Your task to perform on an android device: delete browsing data in the chrome app Image 0: 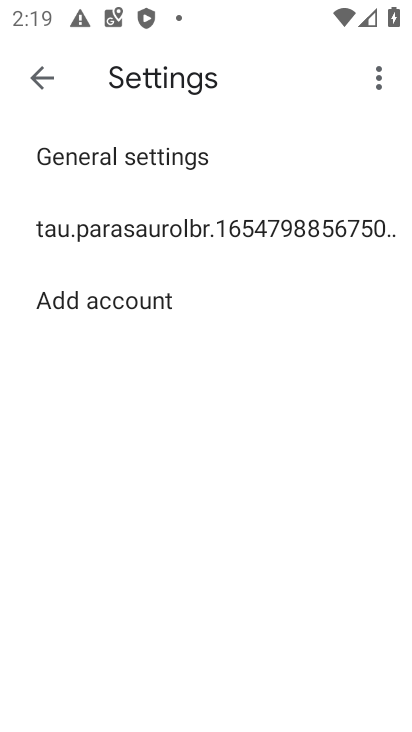
Step 0: press home button
Your task to perform on an android device: delete browsing data in the chrome app Image 1: 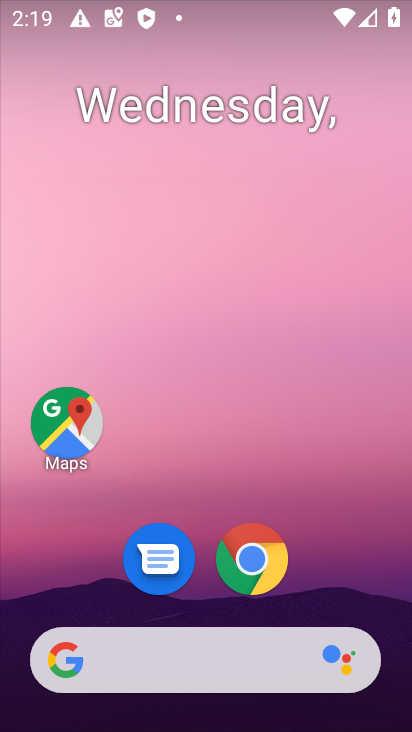
Step 1: click (255, 564)
Your task to perform on an android device: delete browsing data in the chrome app Image 2: 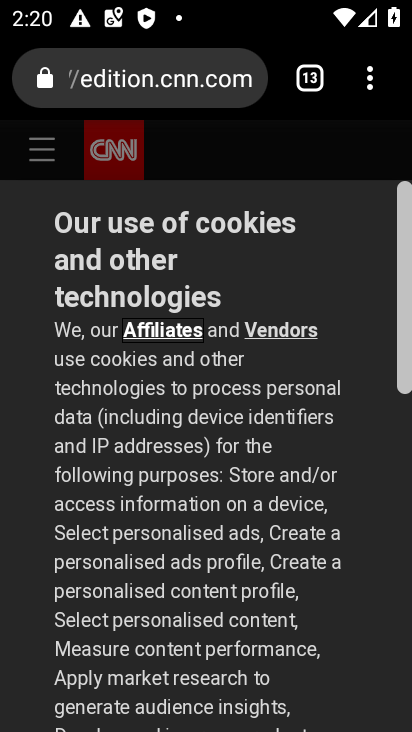
Step 2: click (370, 89)
Your task to perform on an android device: delete browsing data in the chrome app Image 3: 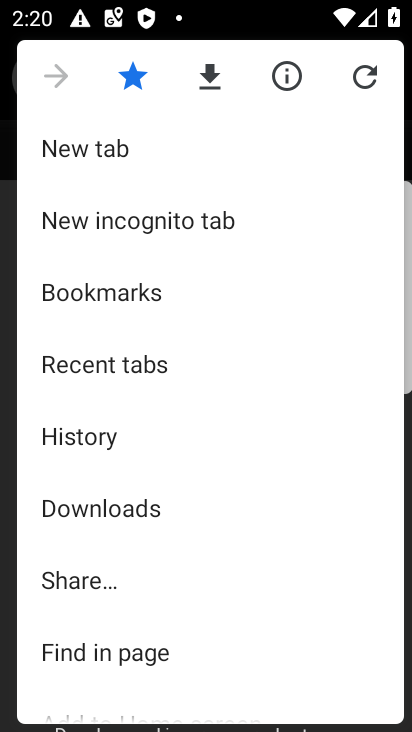
Step 3: click (82, 431)
Your task to perform on an android device: delete browsing data in the chrome app Image 4: 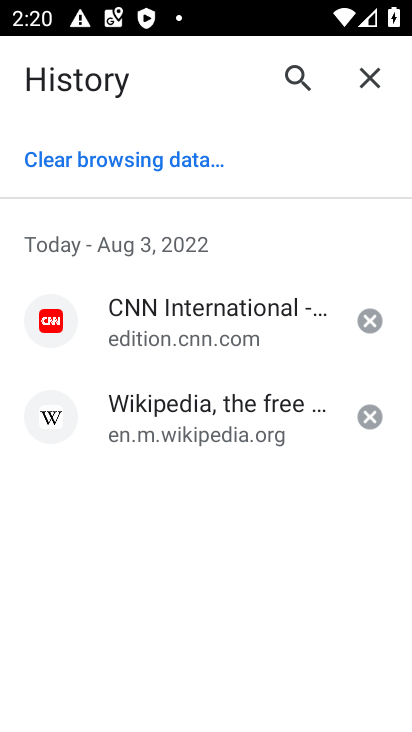
Step 4: click (115, 161)
Your task to perform on an android device: delete browsing data in the chrome app Image 5: 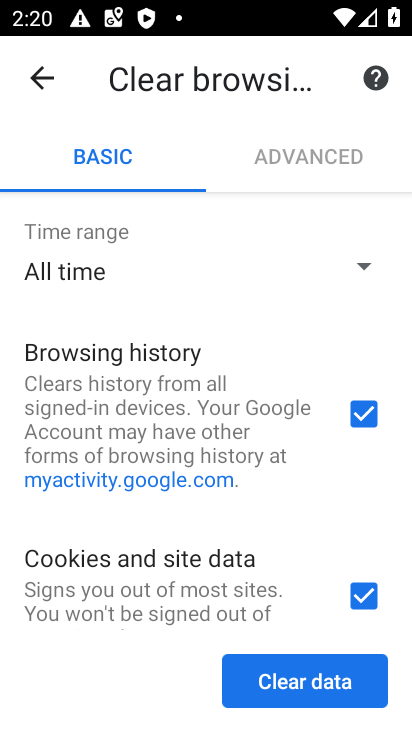
Step 5: drag from (309, 533) to (309, 408)
Your task to perform on an android device: delete browsing data in the chrome app Image 6: 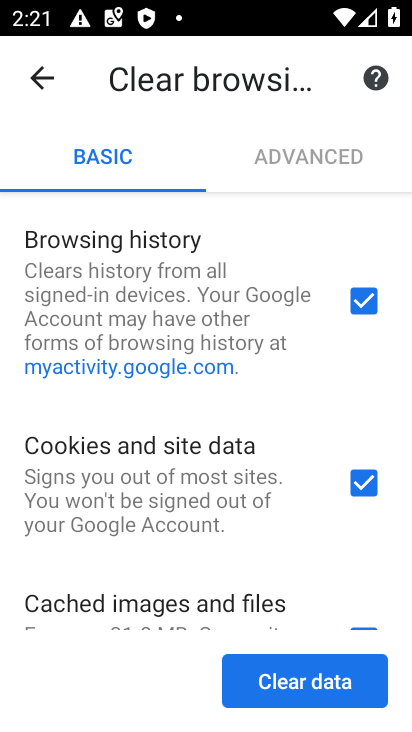
Step 6: click (371, 479)
Your task to perform on an android device: delete browsing data in the chrome app Image 7: 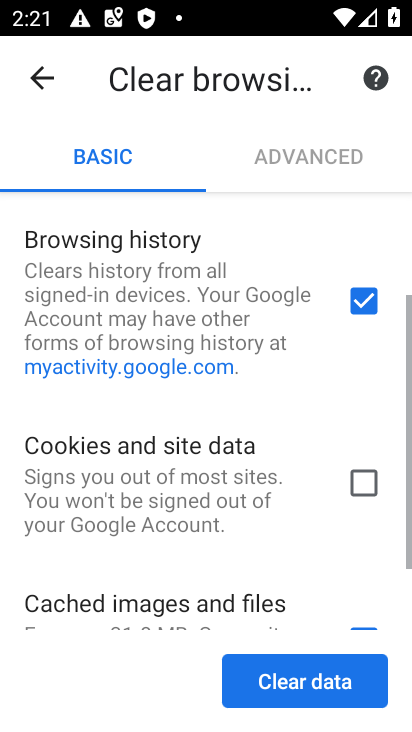
Step 7: drag from (262, 546) to (257, 395)
Your task to perform on an android device: delete browsing data in the chrome app Image 8: 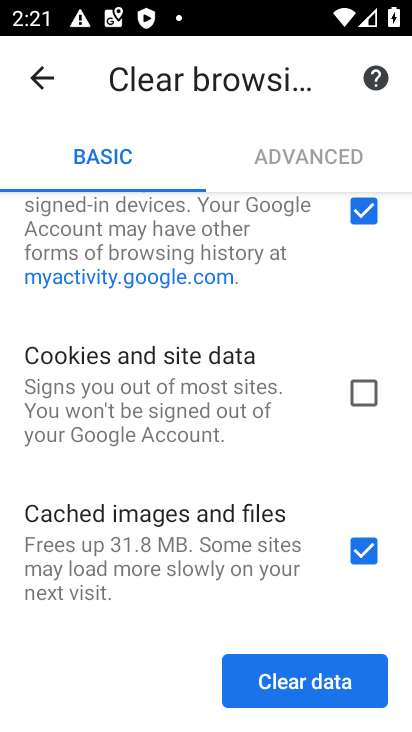
Step 8: click (357, 553)
Your task to perform on an android device: delete browsing data in the chrome app Image 9: 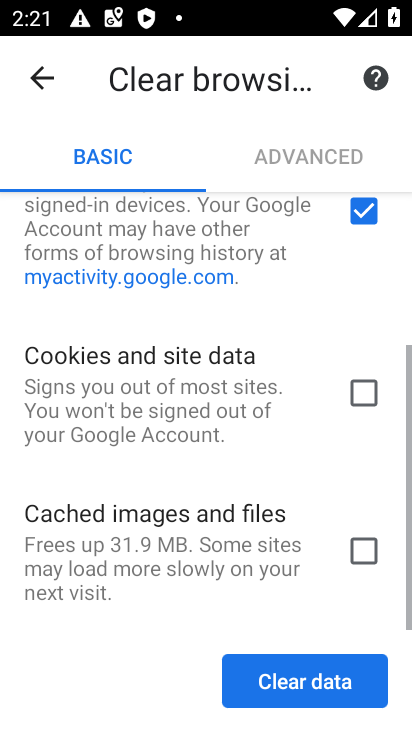
Step 9: click (329, 682)
Your task to perform on an android device: delete browsing data in the chrome app Image 10: 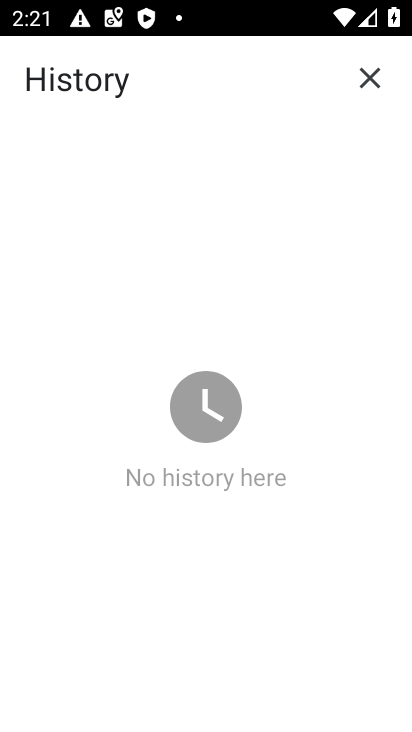
Step 10: task complete